Your task to perform on an android device: add a label to a message in the gmail app Image 0: 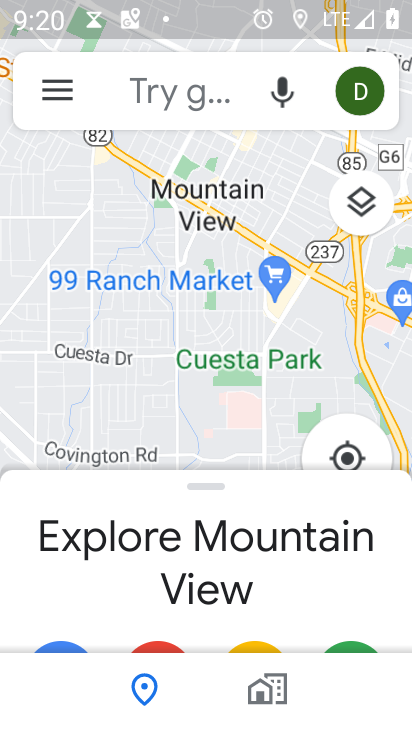
Step 0: press home button
Your task to perform on an android device: add a label to a message in the gmail app Image 1: 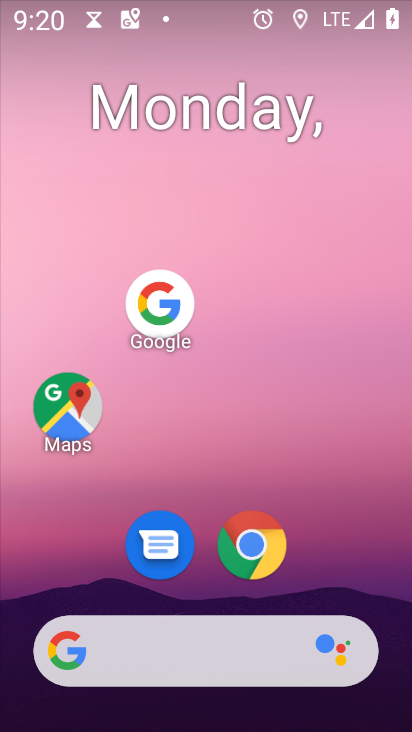
Step 1: drag from (162, 643) to (292, 247)
Your task to perform on an android device: add a label to a message in the gmail app Image 2: 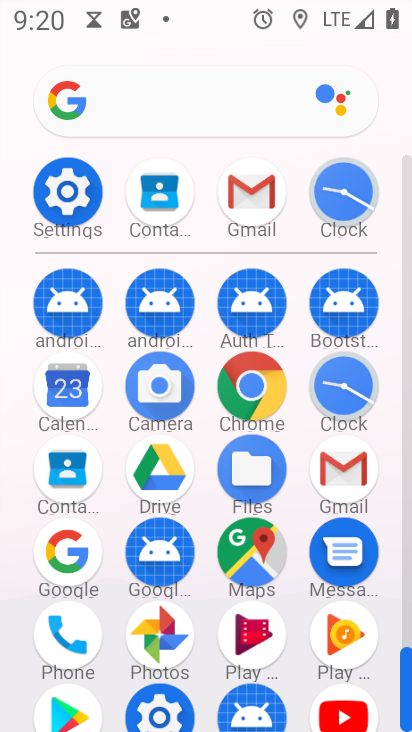
Step 2: click (249, 186)
Your task to perform on an android device: add a label to a message in the gmail app Image 3: 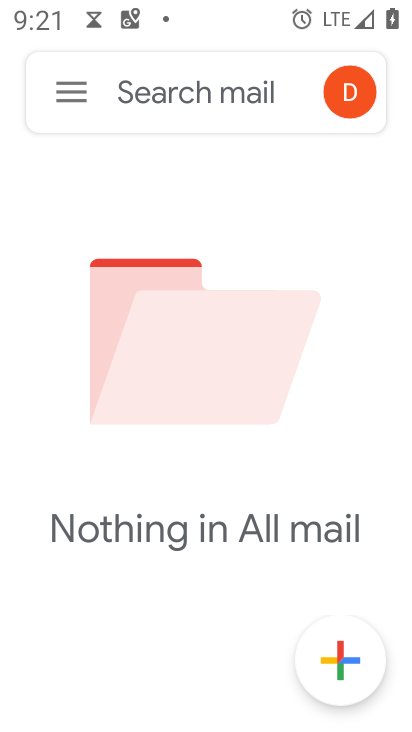
Step 3: task complete